Your task to perform on an android device: snooze an email in the gmail app Image 0: 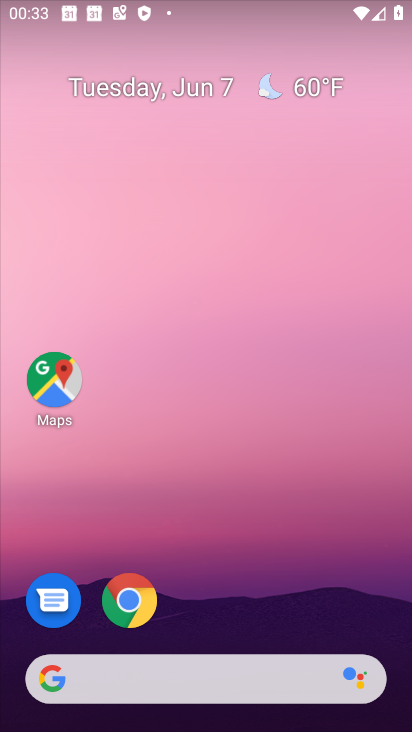
Step 0: drag from (215, 726) to (234, 212)
Your task to perform on an android device: snooze an email in the gmail app Image 1: 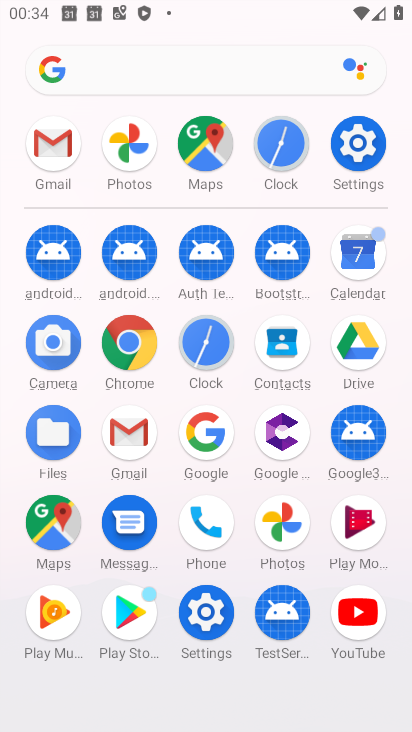
Step 1: click (135, 428)
Your task to perform on an android device: snooze an email in the gmail app Image 2: 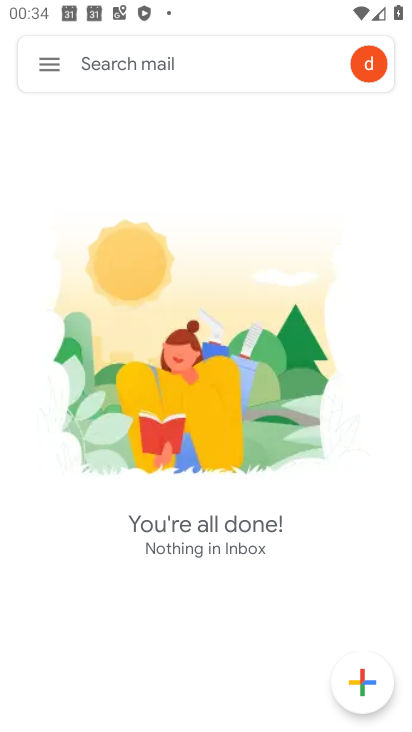
Step 2: task complete